Your task to perform on an android device: turn on wifi Image 0: 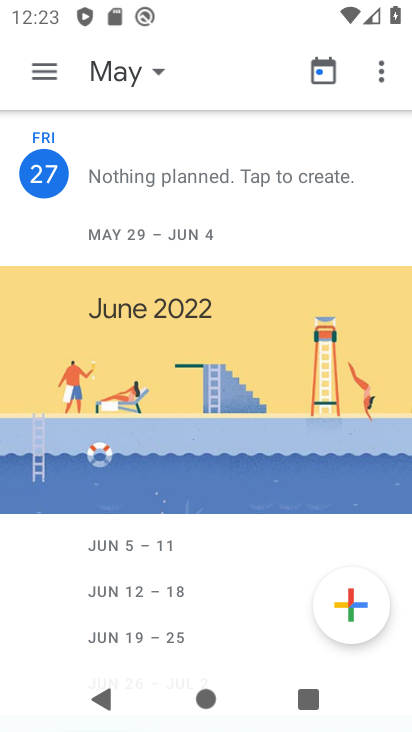
Step 0: press home button
Your task to perform on an android device: turn on wifi Image 1: 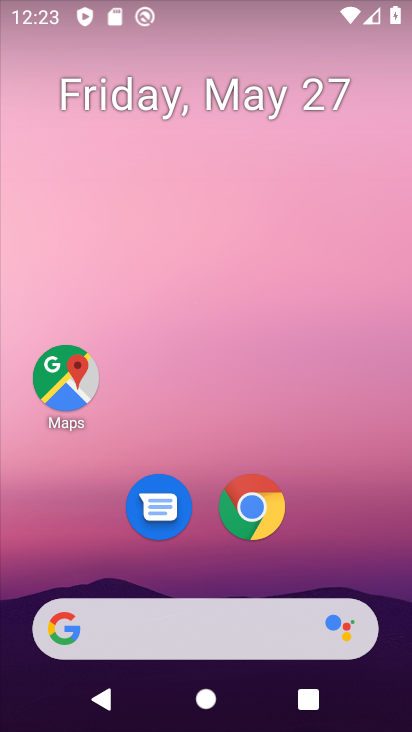
Step 1: drag from (108, 602) to (248, 157)
Your task to perform on an android device: turn on wifi Image 2: 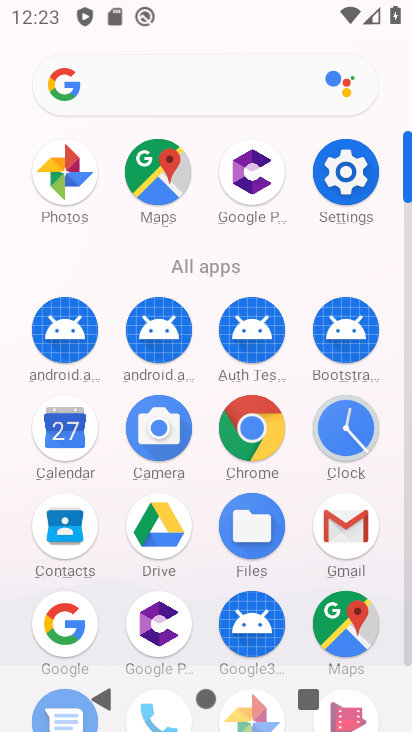
Step 2: drag from (213, 521) to (298, 204)
Your task to perform on an android device: turn on wifi Image 3: 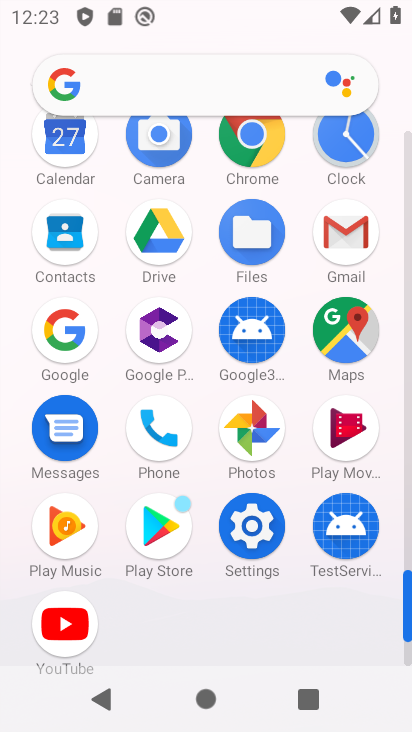
Step 3: click (254, 537)
Your task to perform on an android device: turn on wifi Image 4: 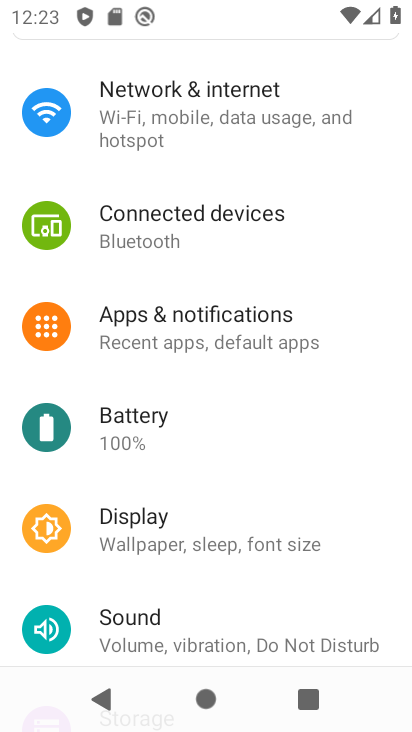
Step 4: drag from (295, 154) to (287, 479)
Your task to perform on an android device: turn on wifi Image 5: 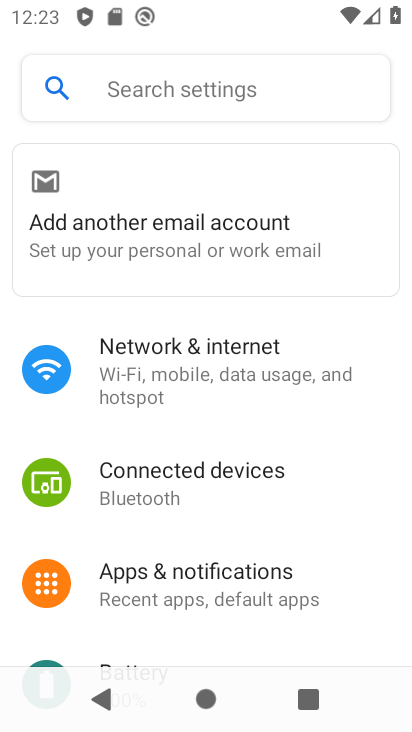
Step 5: click (222, 386)
Your task to perform on an android device: turn on wifi Image 6: 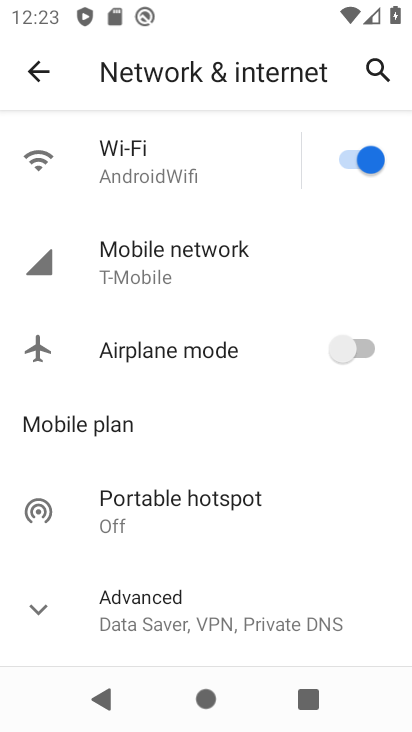
Step 6: task complete